Your task to perform on an android device: Search for seafood restaurants on Google Maps Image 0: 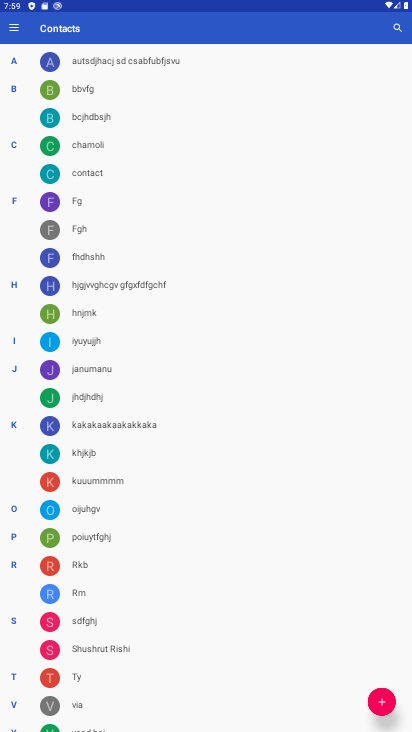
Step 0: press back button
Your task to perform on an android device: Search for seafood restaurants on Google Maps Image 1: 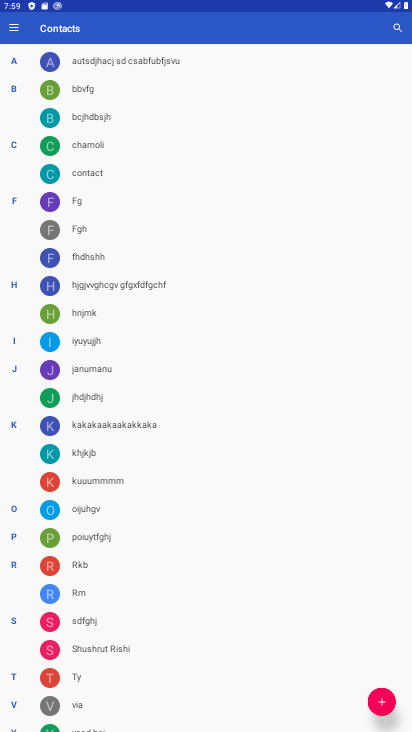
Step 1: press back button
Your task to perform on an android device: Search for seafood restaurants on Google Maps Image 2: 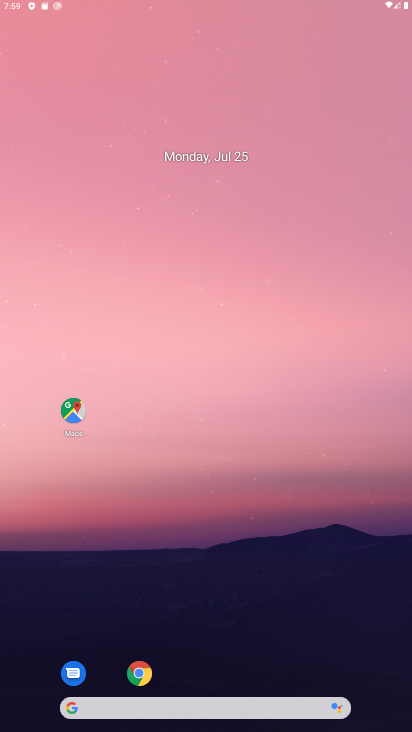
Step 2: press back button
Your task to perform on an android device: Search for seafood restaurants on Google Maps Image 3: 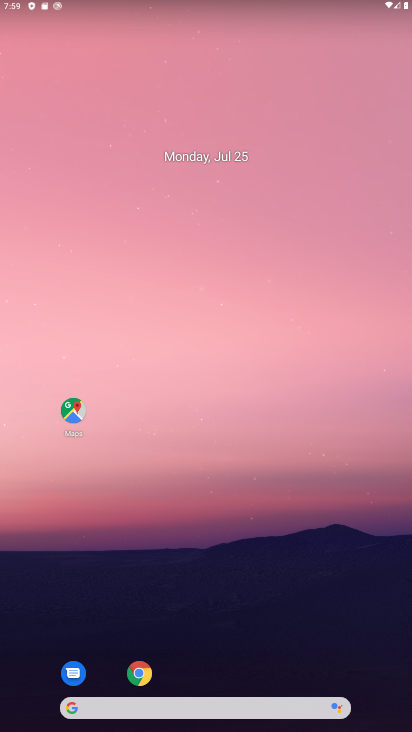
Step 3: click (147, 42)
Your task to perform on an android device: Search for seafood restaurants on Google Maps Image 4: 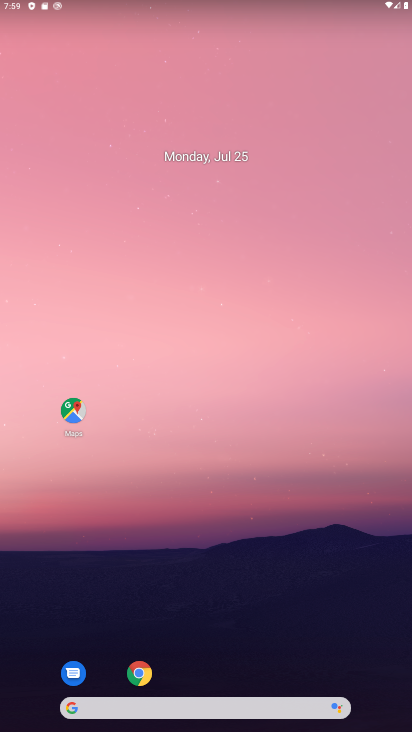
Step 4: drag from (118, 40) to (223, 0)
Your task to perform on an android device: Search for seafood restaurants on Google Maps Image 5: 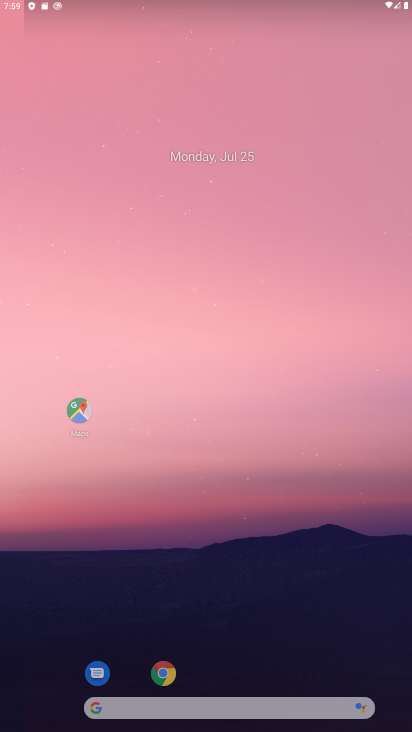
Step 5: drag from (119, 65) to (119, 27)
Your task to perform on an android device: Search for seafood restaurants on Google Maps Image 6: 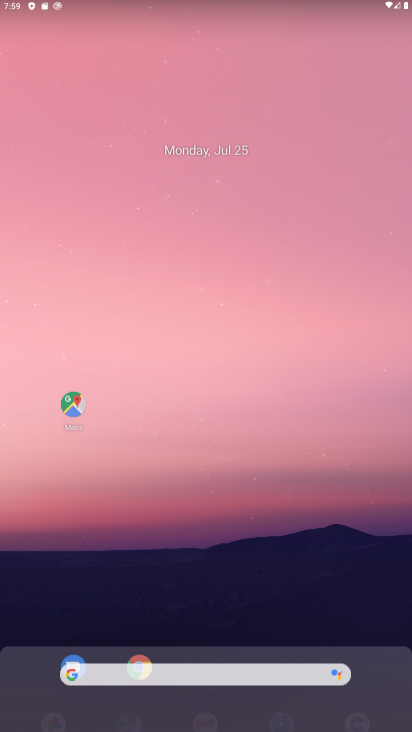
Step 6: drag from (235, 532) to (130, 13)
Your task to perform on an android device: Search for seafood restaurants on Google Maps Image 7: 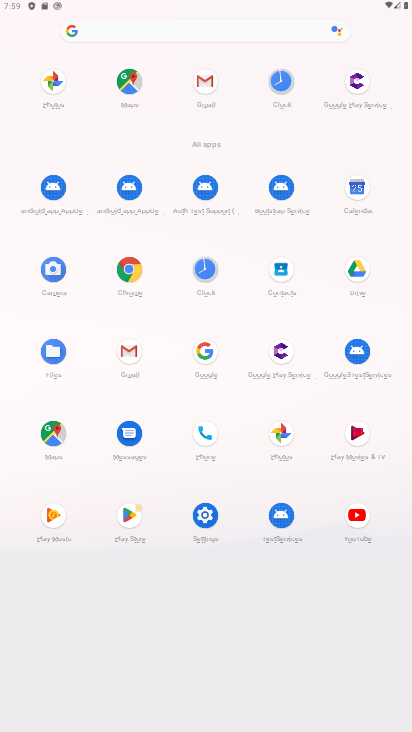
Step 7: click (58, 436)
Your task to perform on an android device: Search for seafood restaurants on Google Maps Image 8: 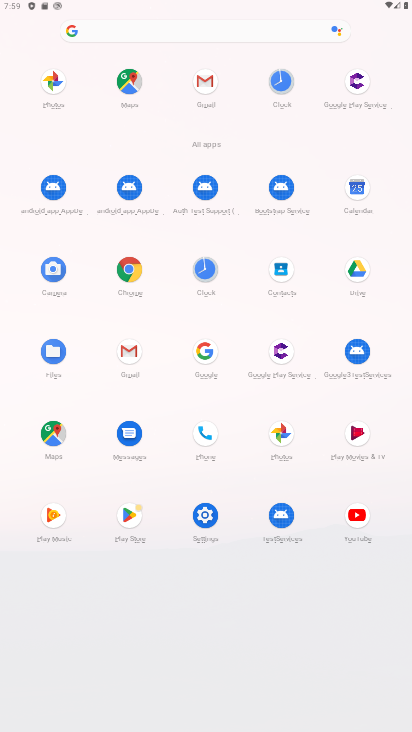
Step 8: click (54, 432)
Your task to perform on an android device: Search for seafood restaurants on Google Maps Image 9: 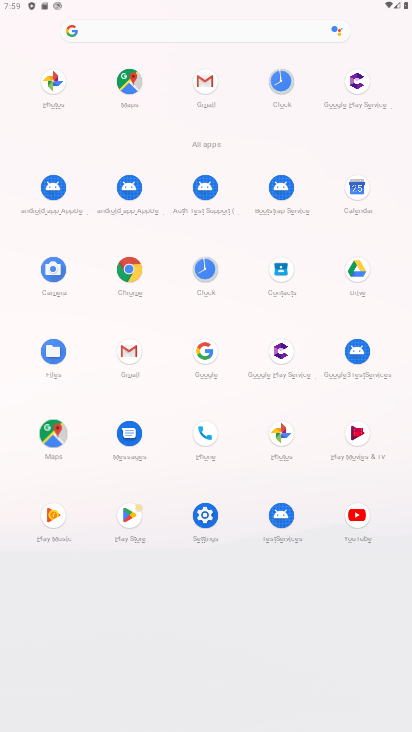
Step 9: click (60, 431)
Your task to perform on an android device: Search for seafood restaurants on Google Maps Image 10: 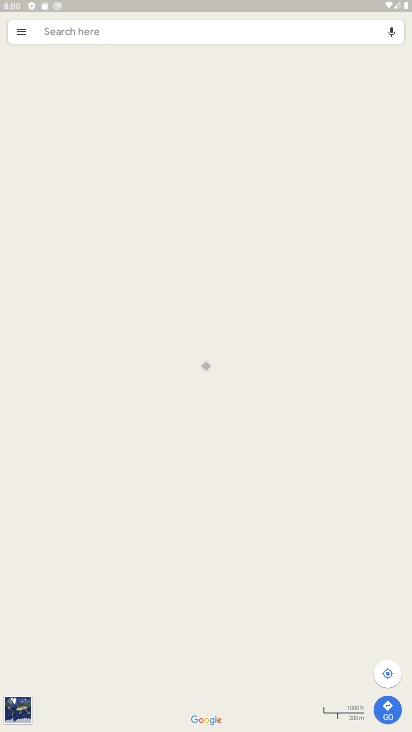
Step 10: click (72, 33)
Your task to perform on an android device: Search for seafood restaurants on Google Maps Image 11: 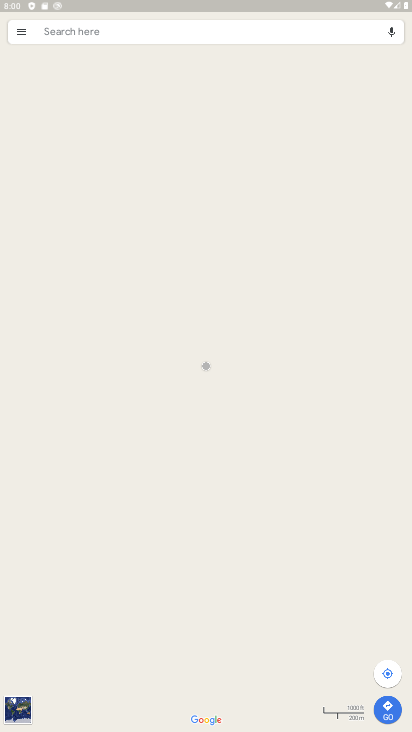
Step 11: click (72, 34)
Your task to perform on an android device: Search for seafood restaurants on Google Maps Image 12: 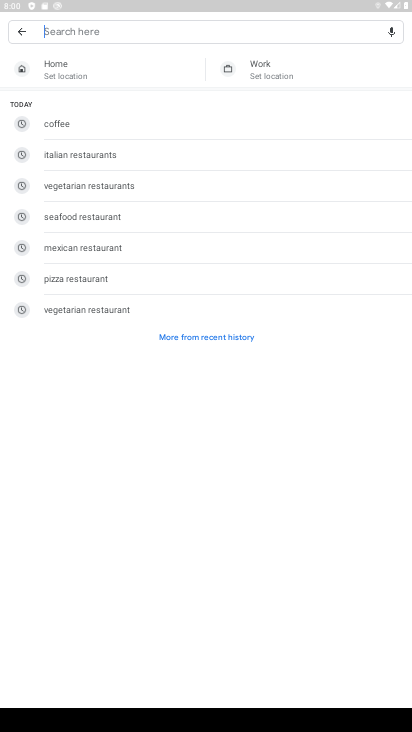
Step 12: type "seafood restaurants"
Your task to perform on an android device: Search for seafood restaurants on Google Maps Image 13: 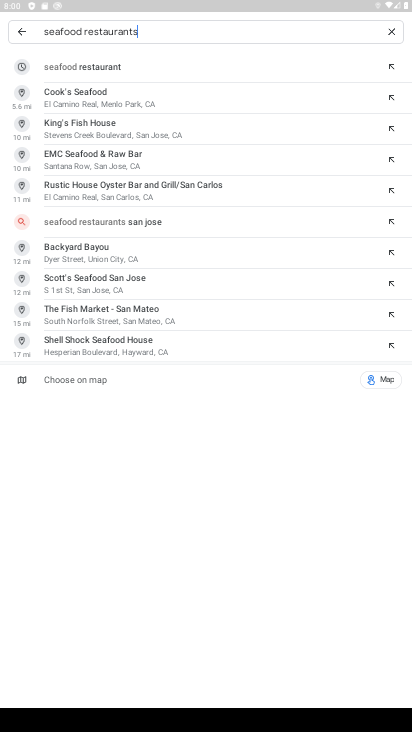
Step 13: click (123, 56)
Your task to perform on an android device: Search for seafood restaurants on Google Maps Image 14: 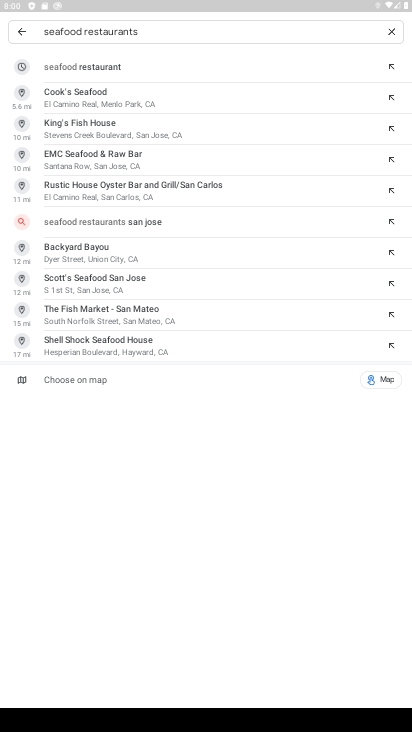
Step 14: click (123, 56)
Your task to perform on an android device: Search for seafood restaurants on Google Maps Image 15: 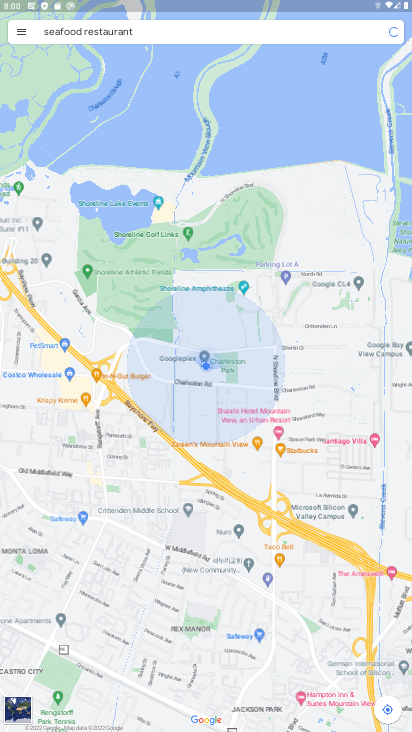
Step 15: task complete